Your task to perform on an android device: Open Youtube and go to "Your channel" Image 0: 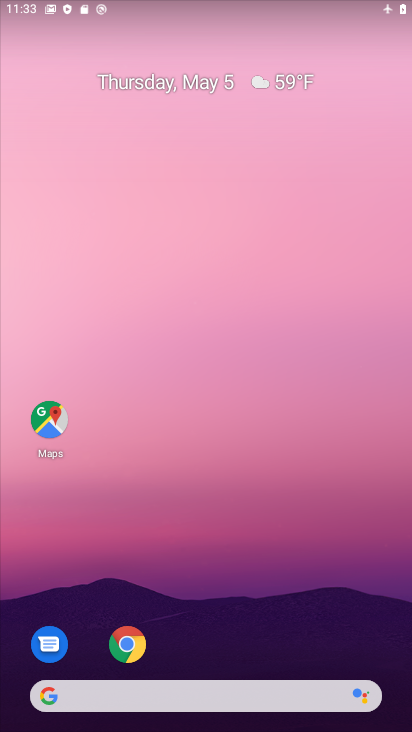
Step 0: click (298, 49)
Your task to perform on an android device: Open Youtube and go to "Your channel" Image 1: 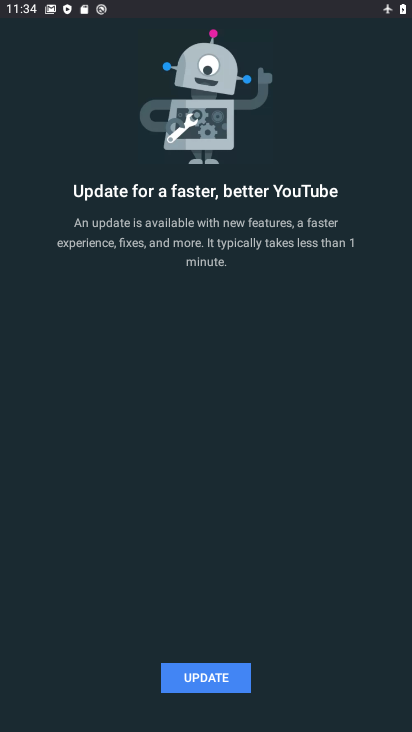
Step 1: click (214, 678)
Your task to perform on an android device: Open Youtube and go to "Your channel" Image 2: 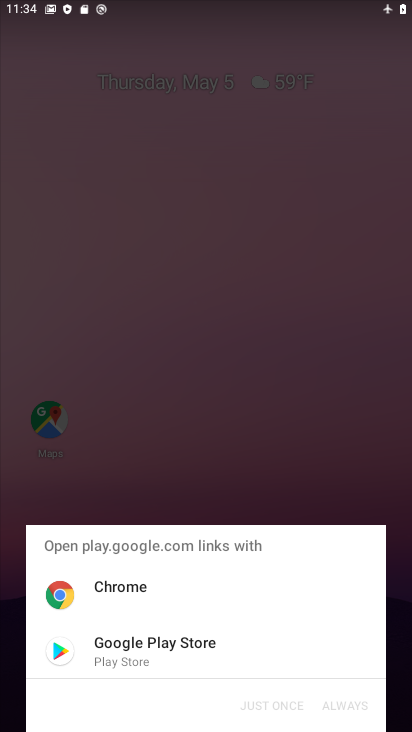
Step 2: click (196, 657)
Your task to perform on an android device: Open Youtube and go to "Your channel" Image 3: 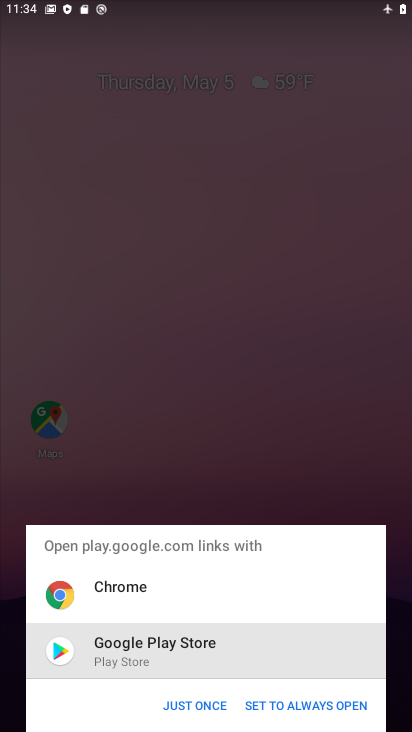
Step 3: click (203, 710)
Your task to perform on an android device: Open Youtube and go to "Your channel" Image 4: 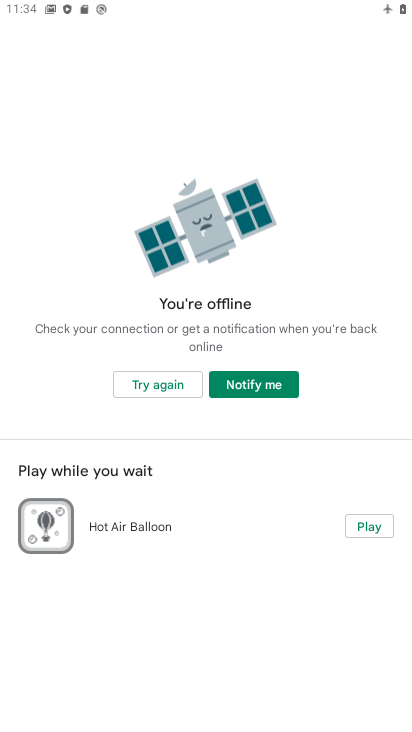
Step 4: press home button
Your task to perform on an android device: Open Youtube and go to "Your channel" Image 5: 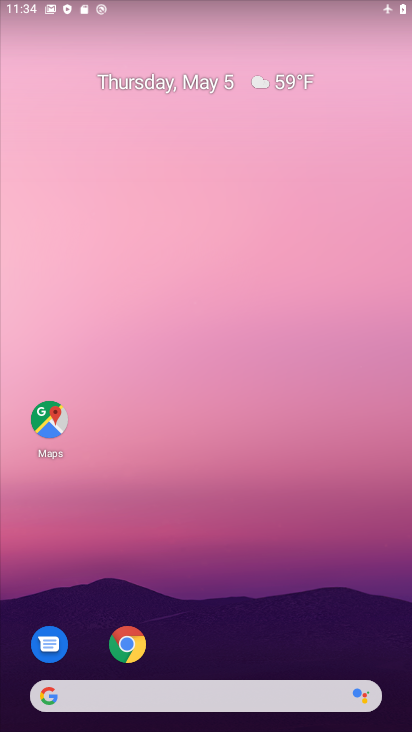
Step 5: drag from (199, 656) to (289, 22)
Your task to perform on an android device: Open Youtube and go to "Your channel" Image 6: 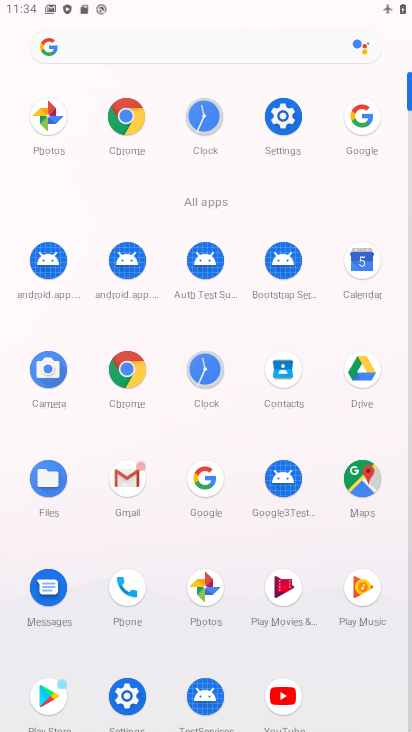
Step 6: click (283, 121)
Your task to perform on an android device: Open Youtube and go to "Your channel" Image 7: 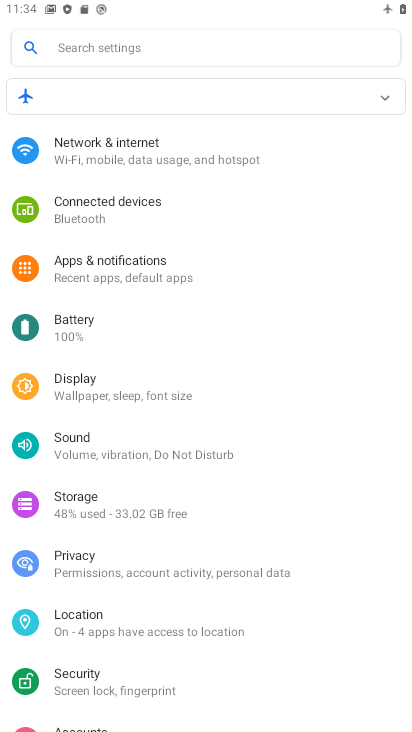
Step 7: click (152, 159)
Your task to perform on an android device: Open Youtube and go to "Your channel" Image 8: 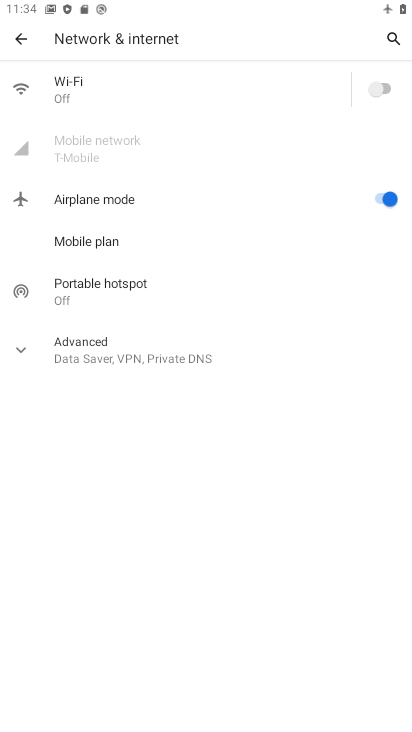
Step 8: click (384, 198)
Your task to perform on an android device: Open Youtube and go to "Your channel" Image 9: 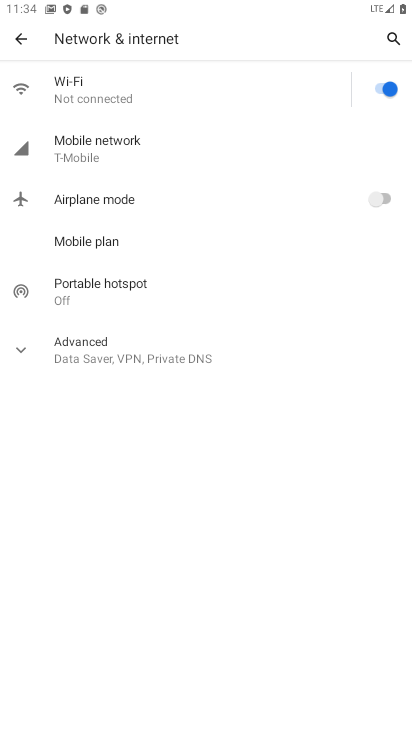
Step 9: task complete